Your task to perform on an android device: Open wifi settings Image 0: 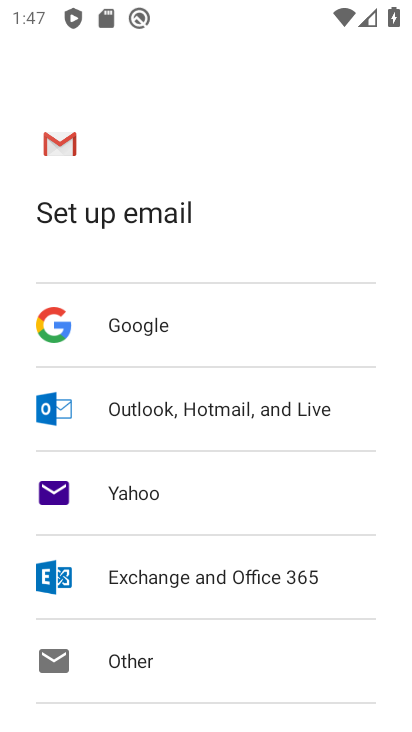
Step 0: press home button
Your task to perform on an android device: Open wifi settings Image 1: 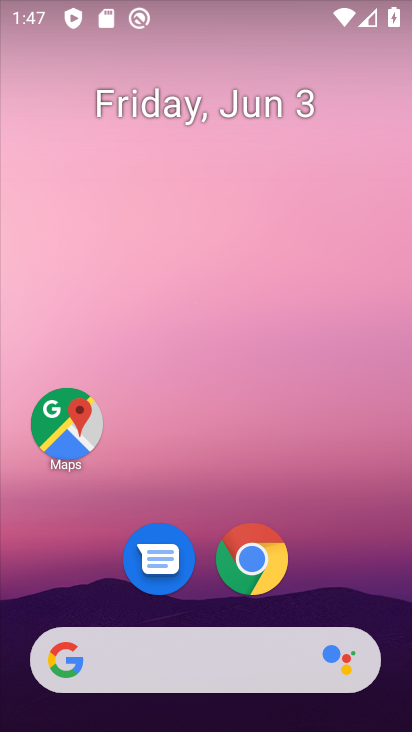
Step 1: drag from (75, 611) to (193, 133)
Your task to perform on an android device: Open wifi settings Image 2: 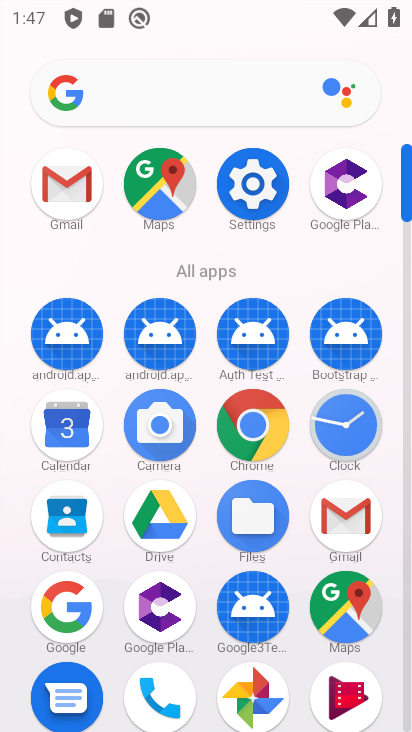
Step 2: drag from (176, 584) to (253, 425)
Your task to perform on an android device: Open wifi settings Image 3: 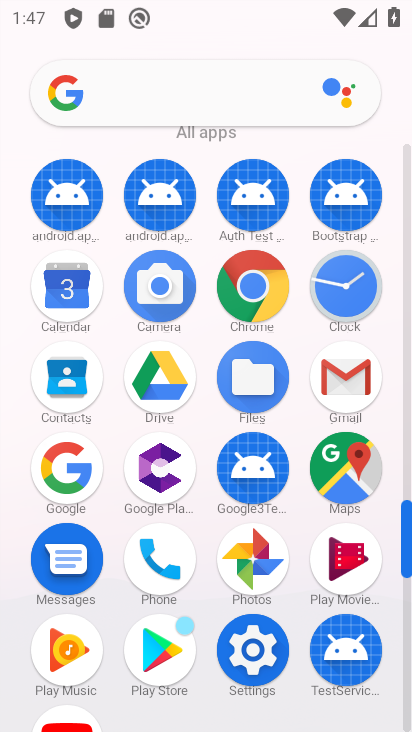
Step 3: click (258, 658)
Your task to perform on an android device: Open wifi settings Image 4: 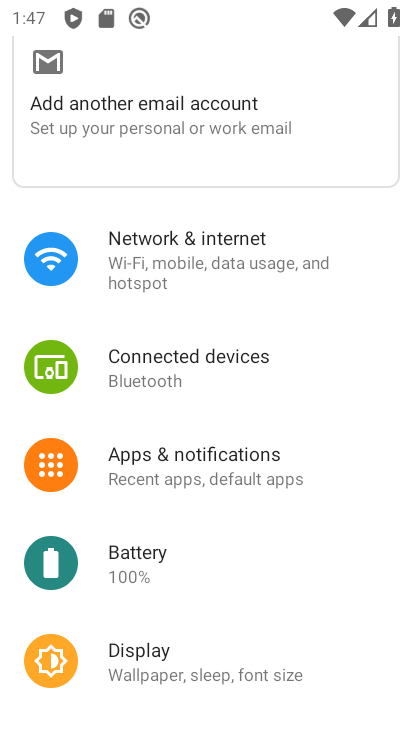
Step 4: click (337, 259)
Your task to perform on an android device: Open wifi settings Image 5: 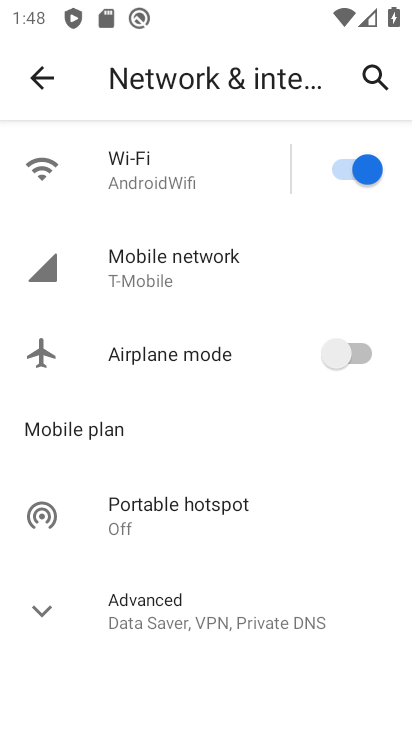
Step 5: task complete